Your task to perform on an android device: Go to calendar. Show me events next week Image 0: 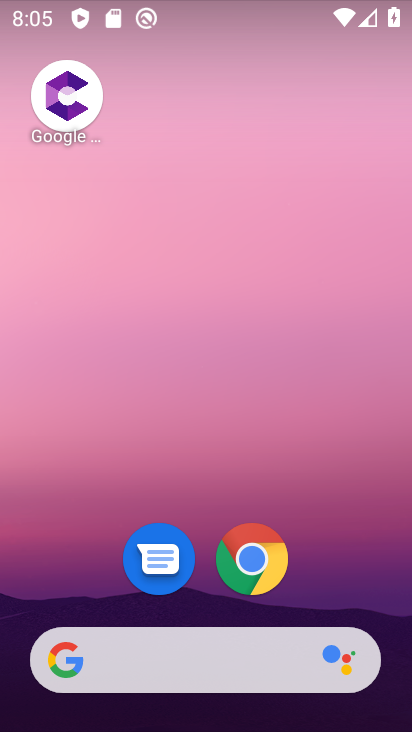
Step 0: drag from (192, 650) to (161, 190)
Your task to perform on an android device: Go to calendar. Show me events next week Image 1: 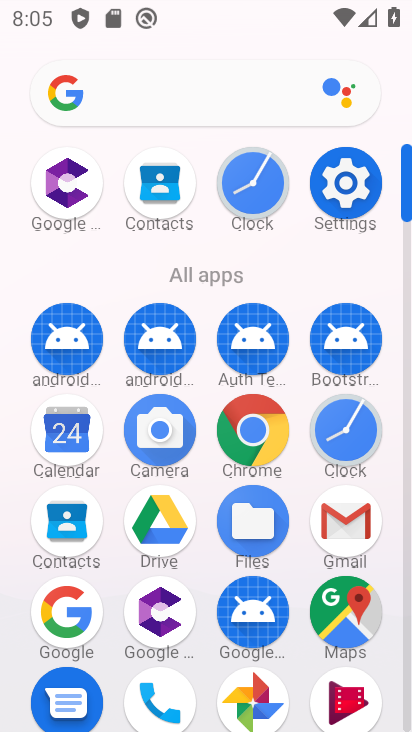
Step 1: click (67, 443)
Your task to perform on an android device: Go to calendar. Show me events next week Image 2: 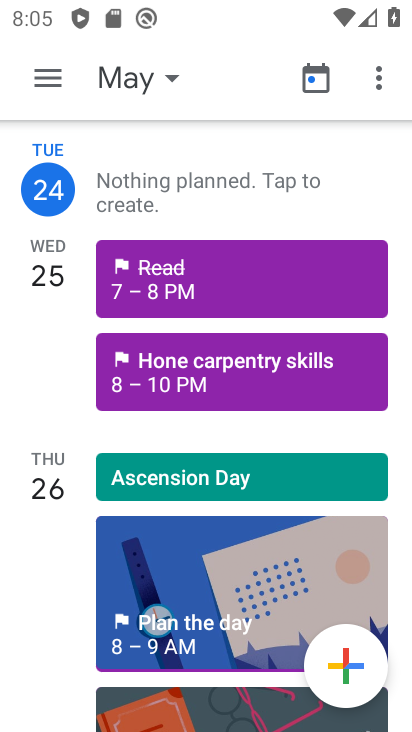
Step 2: click (40, 77)
Your task to perform on an android device: Go to calendar. Show me events next week Image 3: 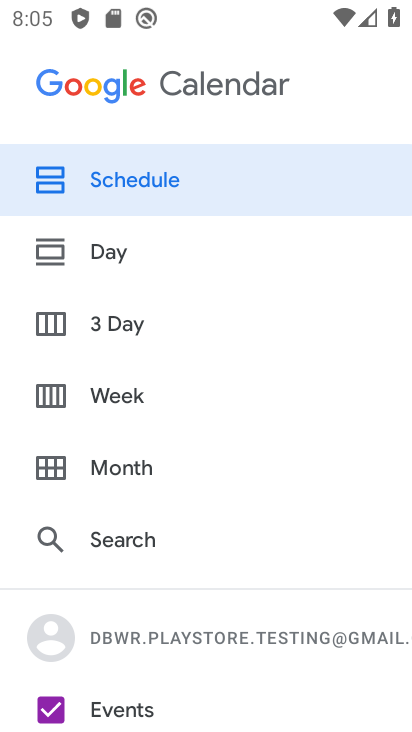
Step 3: click (117, 388)
Your task to perform on an android device: Go to calendar. Show me events next week Image 4: 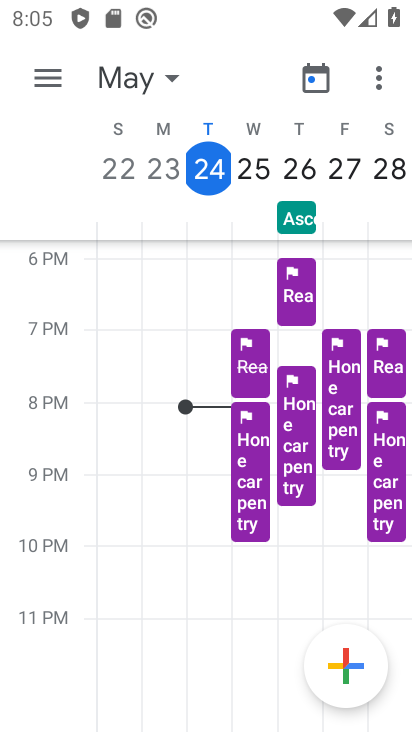
Step 4: task complete